Your task to perform on an android device: change the clock display to show seconds Image 0: 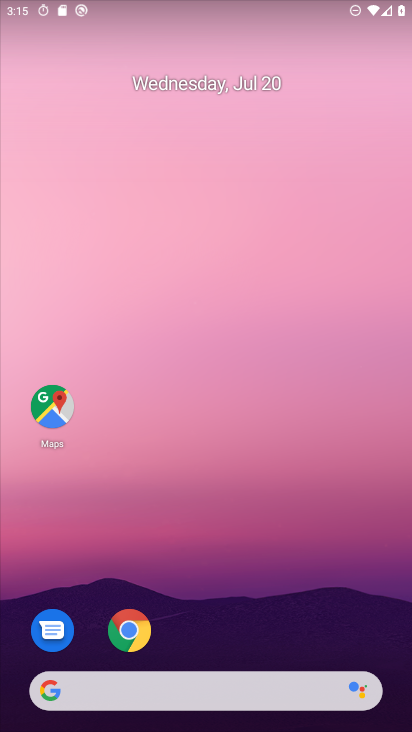
Step 0: drag from (217, 512) to (170, 127)
Your task to perform on an android device: change the clock display to show seconds Image 1: 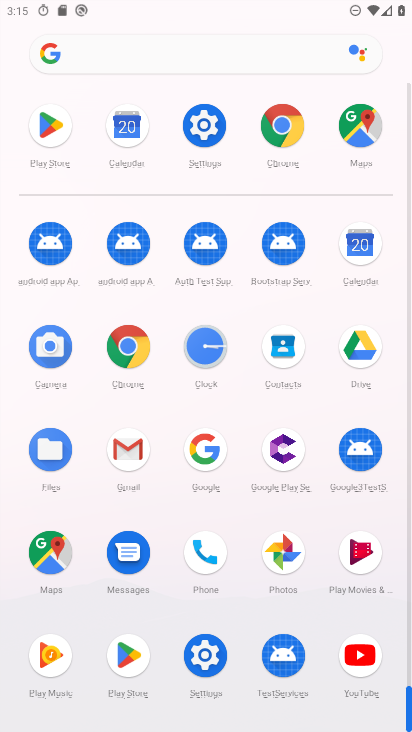
Step 1: click (202, 342)
Your task to perform on an android device: change the clock display to show seconds Image 2: 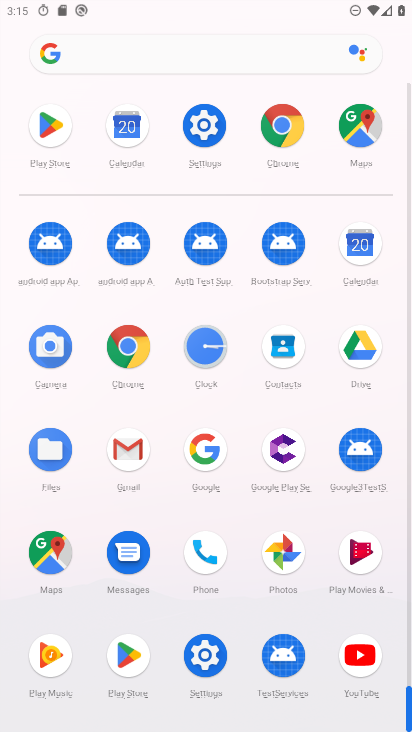
Step 2: click (201, 339)
Your task to perform on an android device: change the clock display to show seconds Image 3: 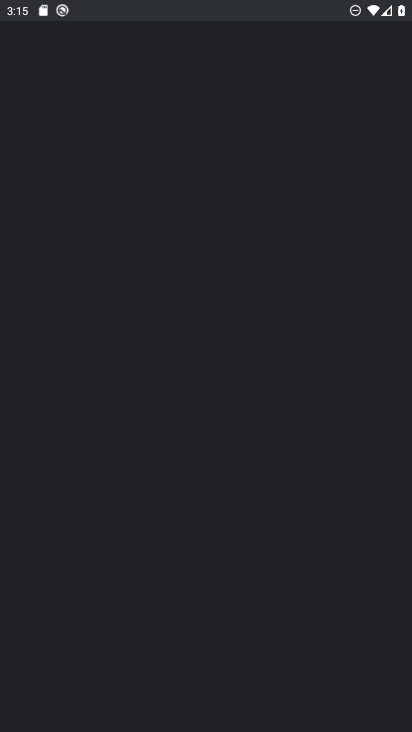
Step 3: click (216, 338)
Your task to perform on an android device: change the clock display to show seconds Image 4: 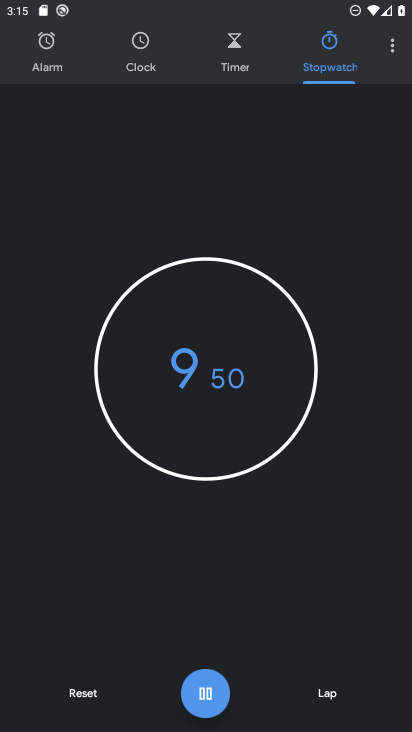
Step 4: click (207, 694)
Your task to perform on an android device: change the clock display to show seconds Image 5: 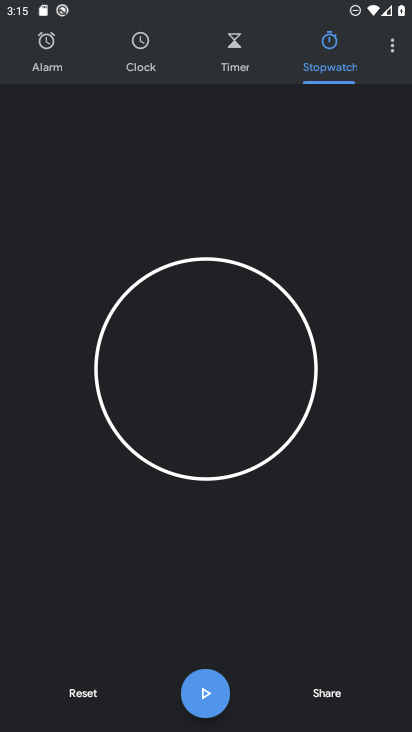
Step 5: click (399, 48)
Your task to perform on an android device: change the clock display to show seconds Image 6: 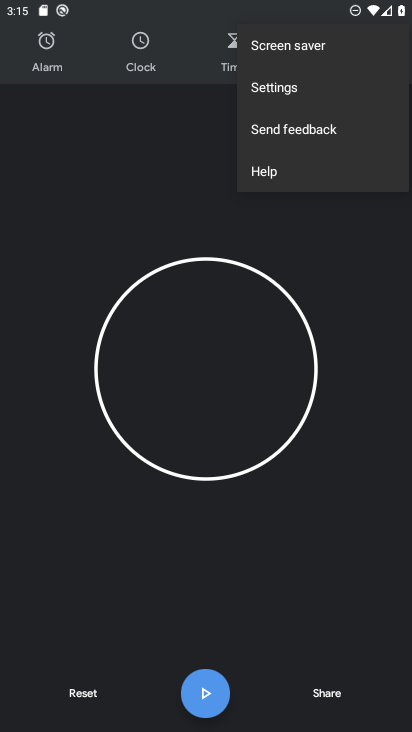
Step 6: click (284, 91)
Your task to perform on an android device: change the clock display to show seconds Image 7: 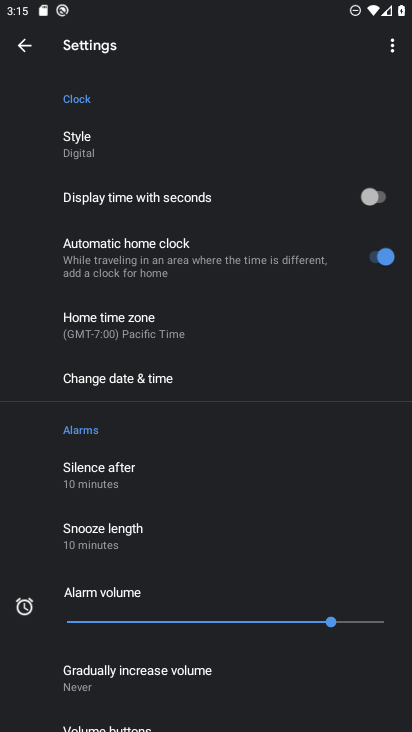
Step 7: click (367, 197)
Your task to perform on an android device: change the clock display to show seconds Image 8: 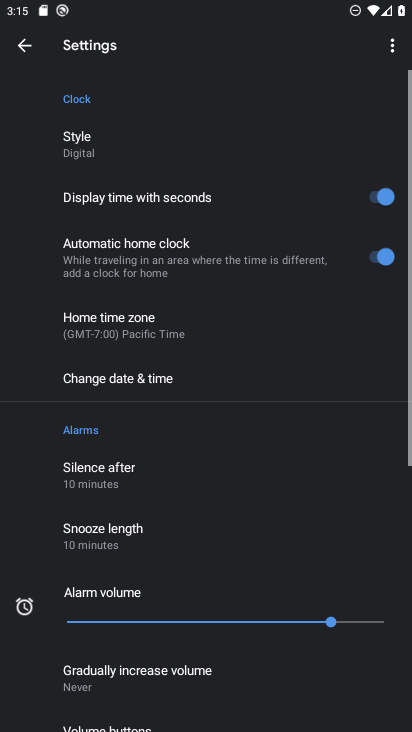
Step 8: task complete